Your task to perform on an android device: Go to Wikipedia Image 0: 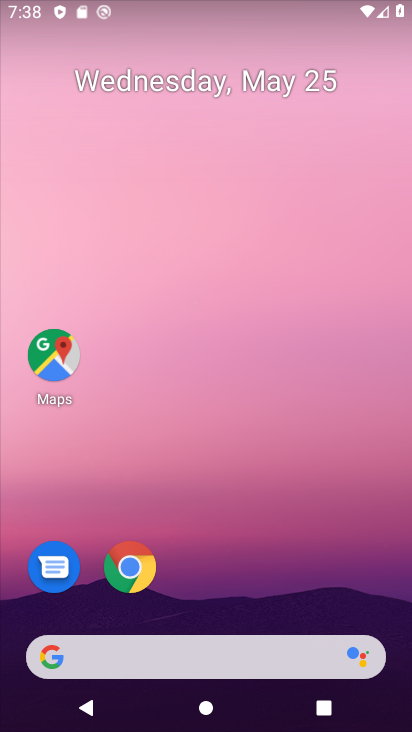
Step 0: drag from (265, 610) to (284, 59)
Your task to perform on an android device: Go to Wikipedia Image 1: 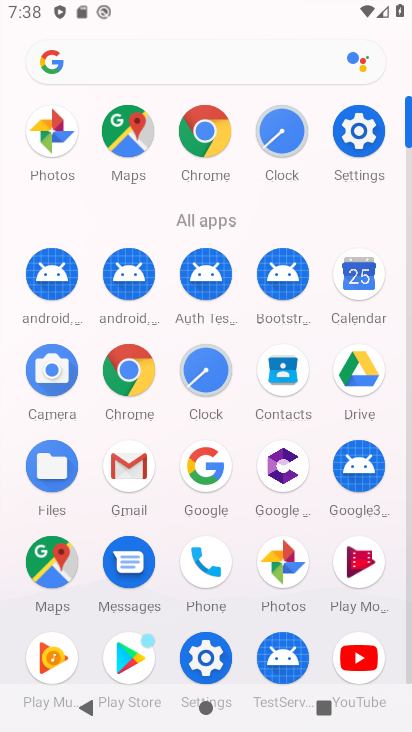
Step 1: click (344, 129)
Your task to perform on an android device: Go to Wikipedia Image 2: 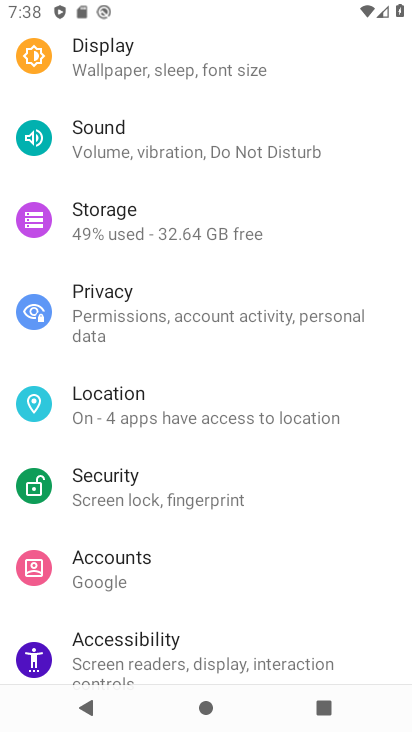
Step 2: press home button
Your task to perform on an android device: Go to Wikipedia Image 3: 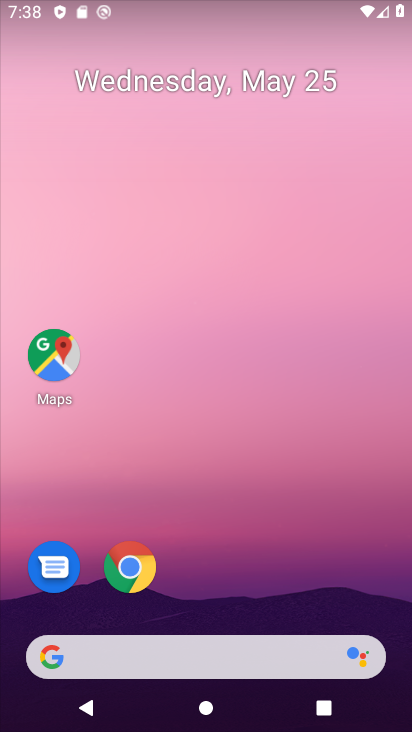
Step 3: click (167, 653)
Your task to perform on an android device: Go to Wikipedia Image 4: 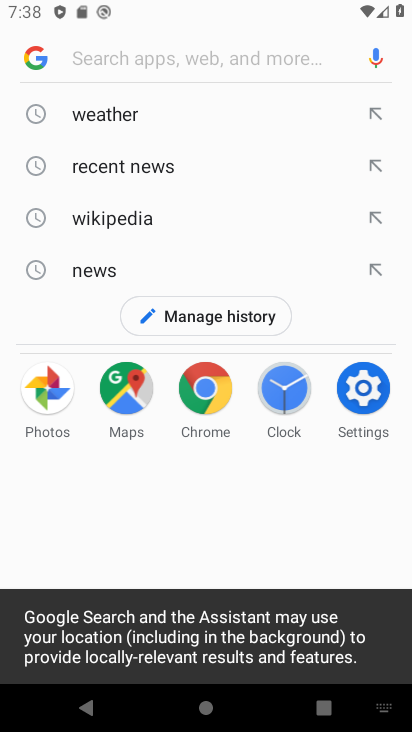
Step 4: click (237, 214)
Your task to perform on an android device: Go to Wikipedia Image 5: 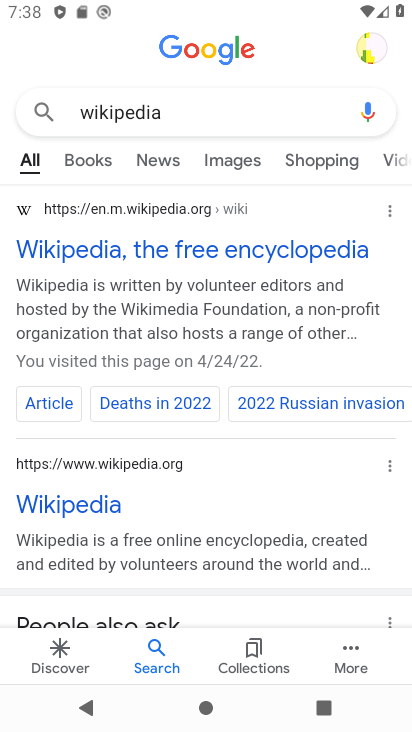
Step 5: click (159, 234)
Your task to perform on an android device: Go to Wikipedia Image 6: 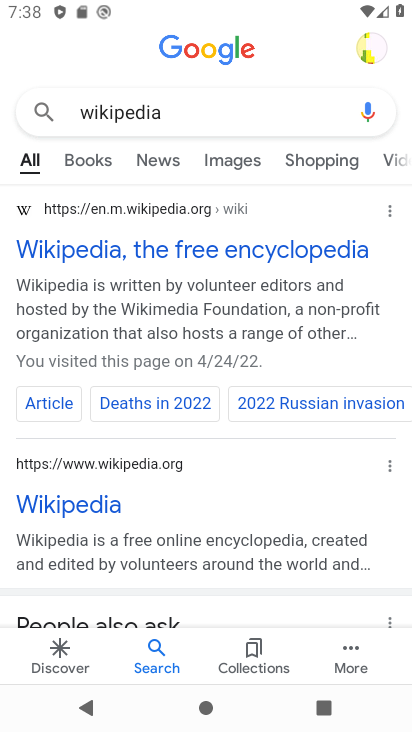
Step 6: task complete